Your task to perform on an android device: turn on location history Image 0: 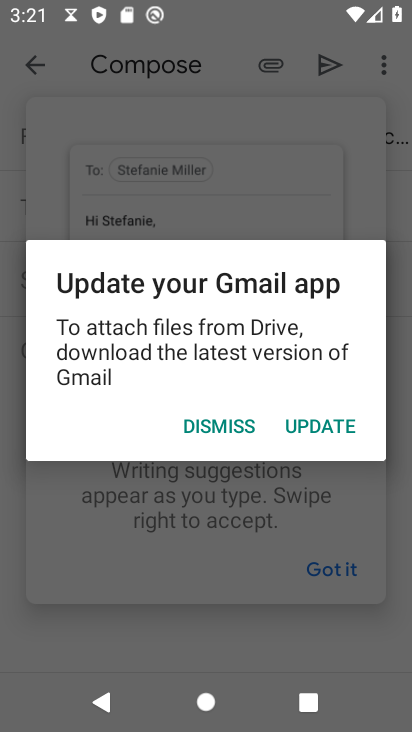
Step 0: press home button
Your task to perform on an android device: turn on location history Image 1: 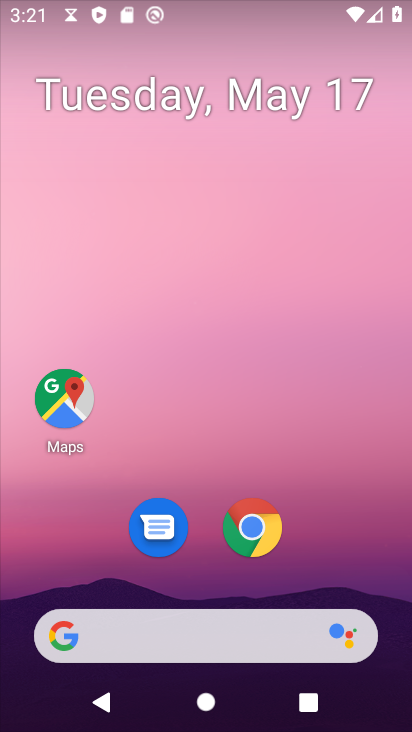
Step 1: drag from (90, 609) to (189, 119)
Your task to perform on an android device: turn on location history Image 2: 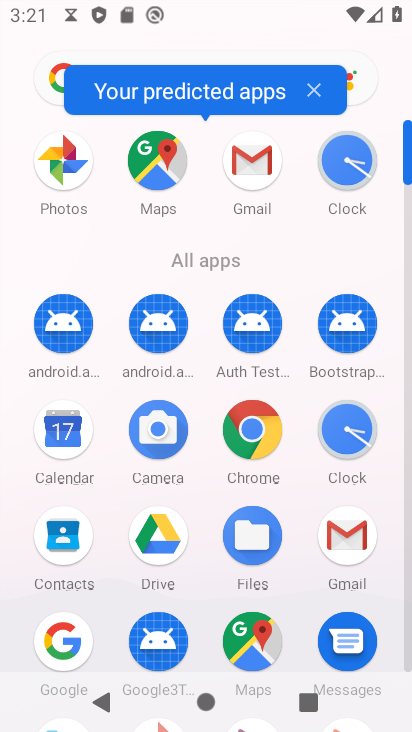
Step 2: drag from (163, 613) to (226, 406)
Your task to perform on an android device: turn on location history Image 3: 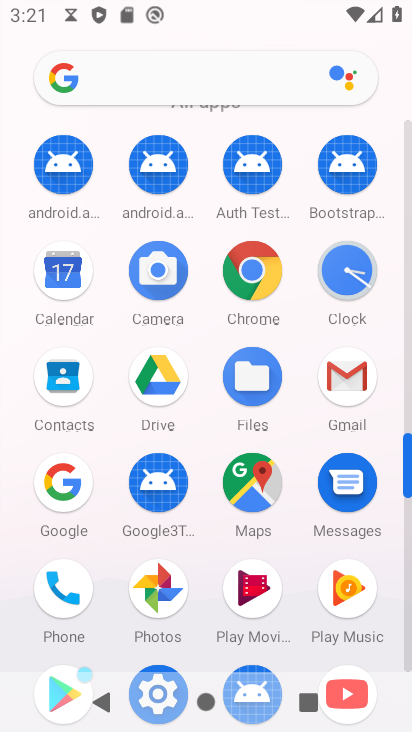
Step 3: drag from (189, 660) to (224, 487)
Your task to perform on an android device: turn on location history Image 4: 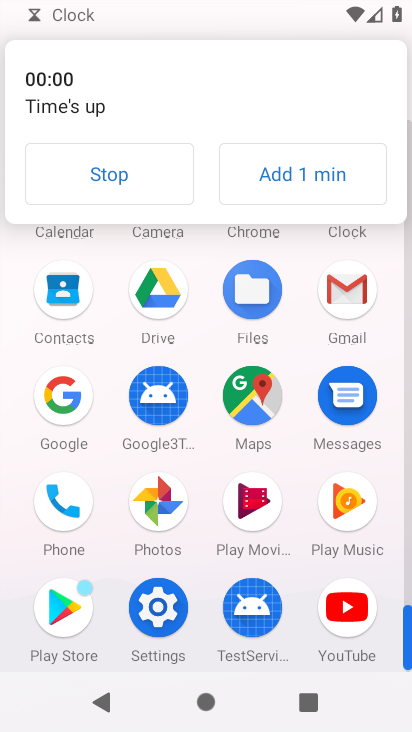
Step 4: click (171, 625)
Your task to perform on an android device: turn on location history Image 5: 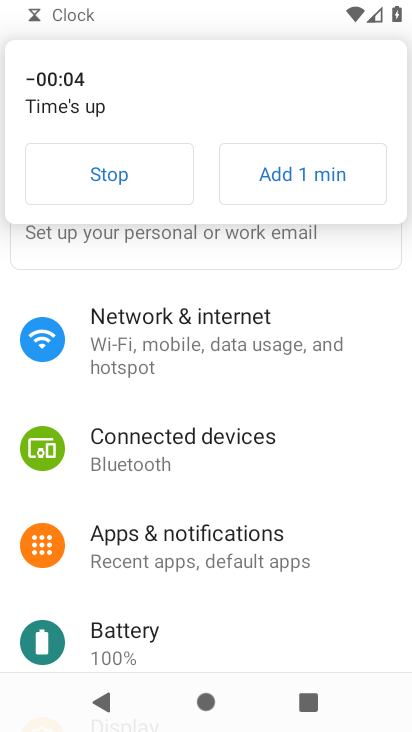
Step 5: drag from (180, 588) to (244, 319)
Your task to perform on an android device: turn on location history Image 6: 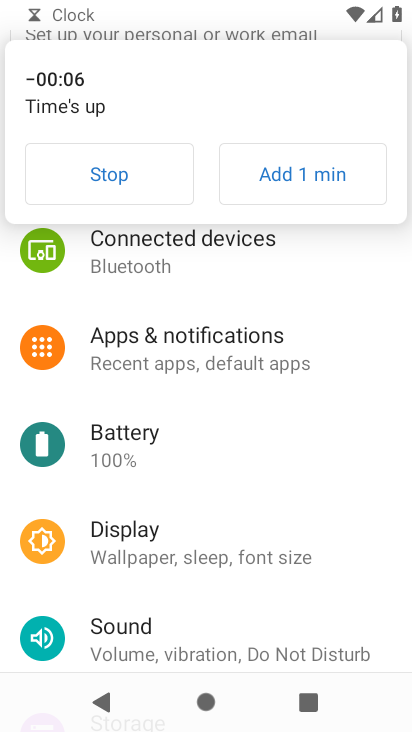
Step 6: click (122, 175)
Your task to perform on an android device: turn on location history Image 7: 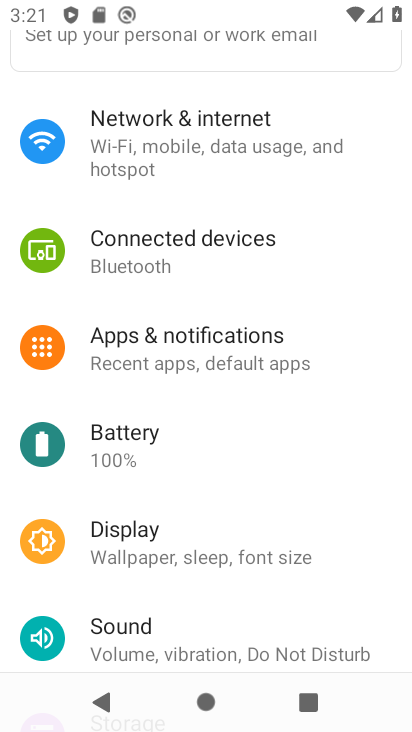
Step 7: drag from (158, 609) to (243, 273)
Your task to perform on an android device: turn on location history Image 8: 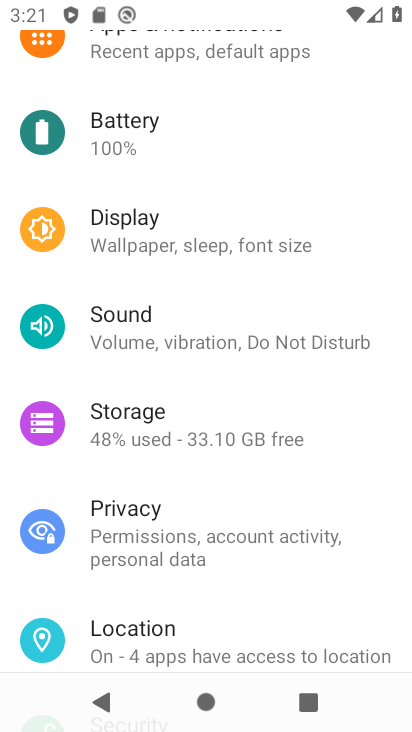
Step 8: click (154, 648)
Your task to perform on an android device: turn on location history Image 9: 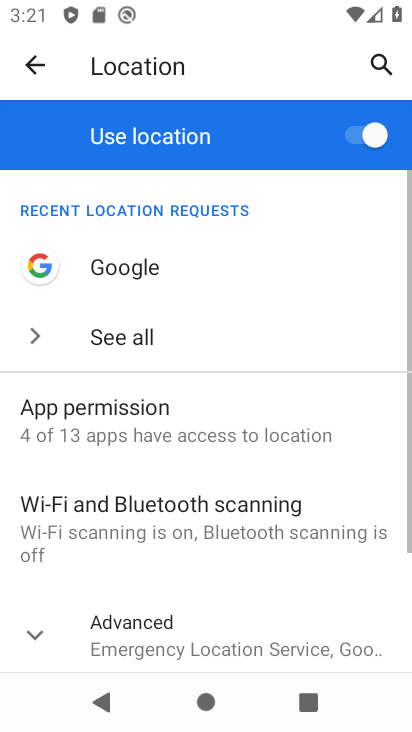
Step 9: drag from (162, 522) to (227, 278)
Your task to perform on an android device: turn on location history Image 10: 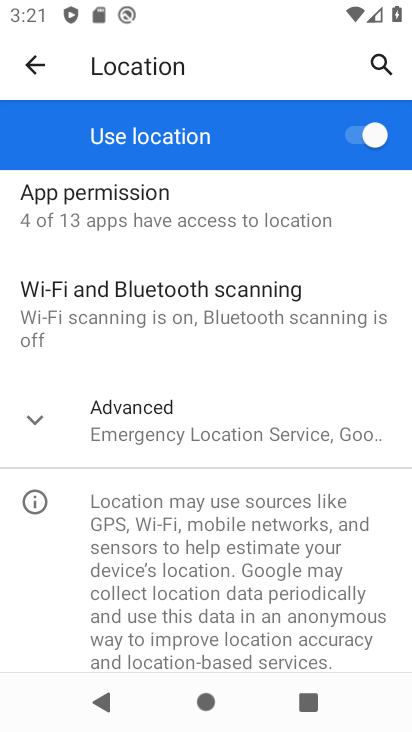
Step 10: click (192, 447)
Your task to perform on an android device: turn on location history Image 11: 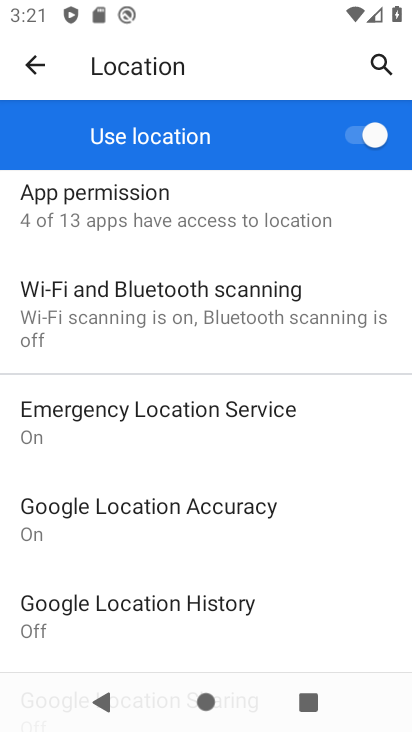
Step 11: drag from (152, 583) to (199, 396)
Your task to perform on an android device: turn on location history Image 12: 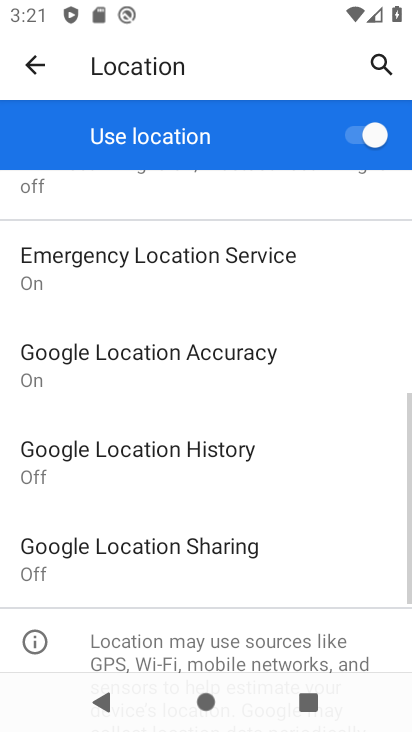
Step 12: click (179, 450)
Your task to perform on an android device: turn on location history Image 13: 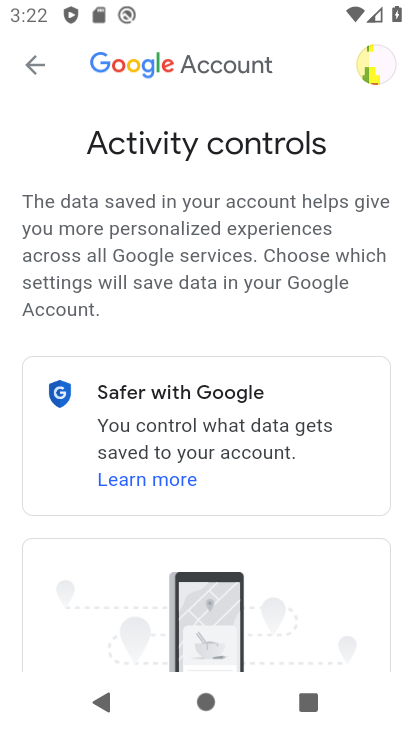
Step 13: drag from (175, 610) to (266, 223)
Your task to perform on an android device: turn on location history Image 14: 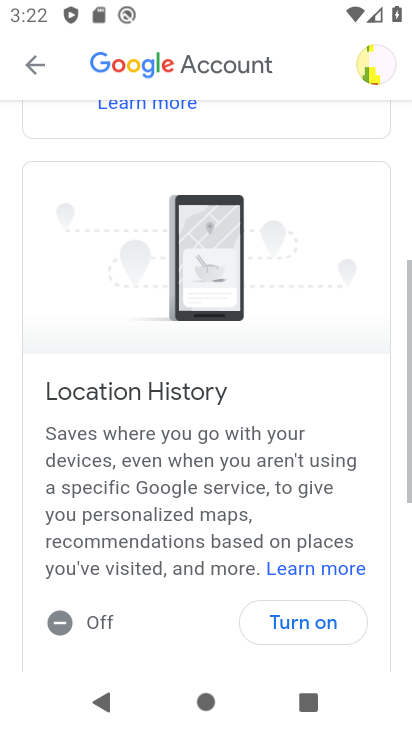
Step 14: drag from (235, 613) to (284, 324)
Your task to perform on an android device: turn on location history Image 15: 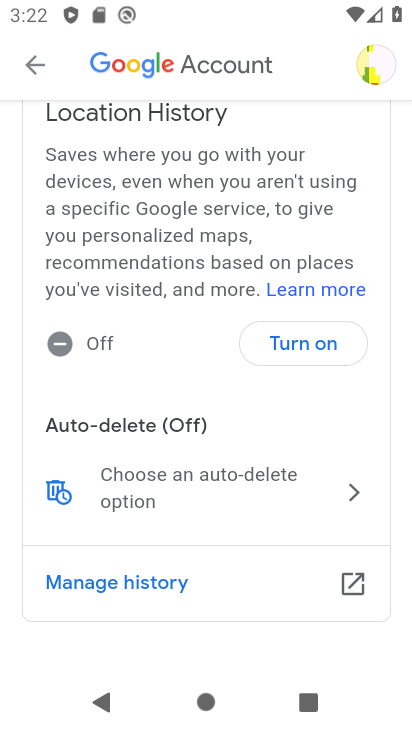
Step 15: click (317, 339)
Your task to perform on an android device: turn on location history Image 16: 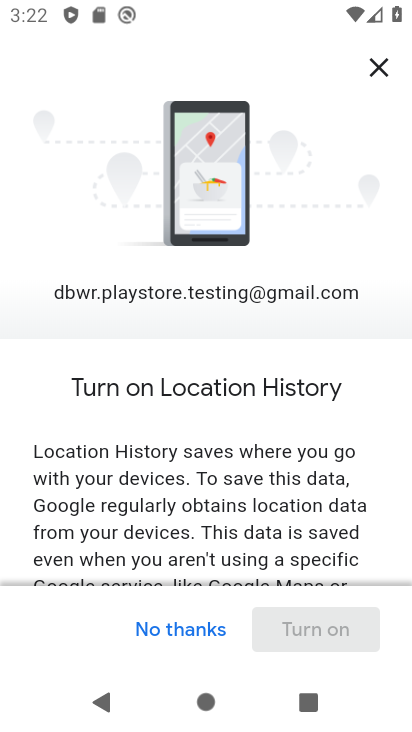
Step 16: drag from (218, 526) to (303, 159)
Your task to perform on an android device: turn on location history Image 17: 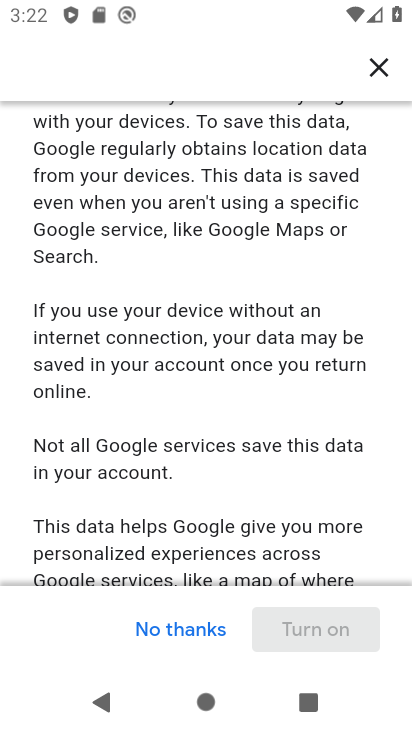
Step 17: drag from (260, 466) to (320, 183)
Your task to perform on an android device: turn on location history Image 18: 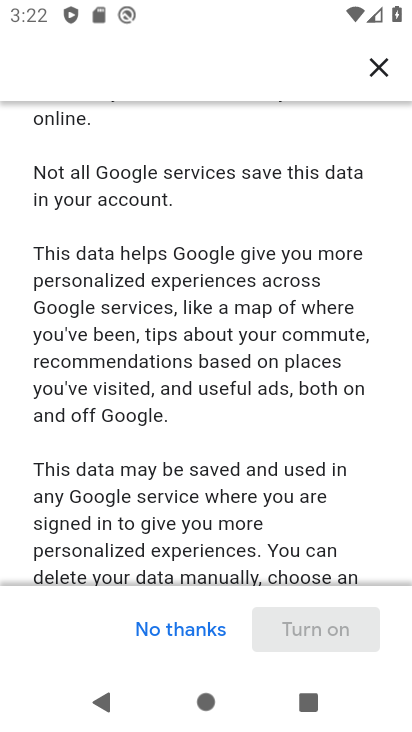
Step 18: drag from (275, 502) to (331, 205)
Your task to perform on an android device: turn on location history Image 19: 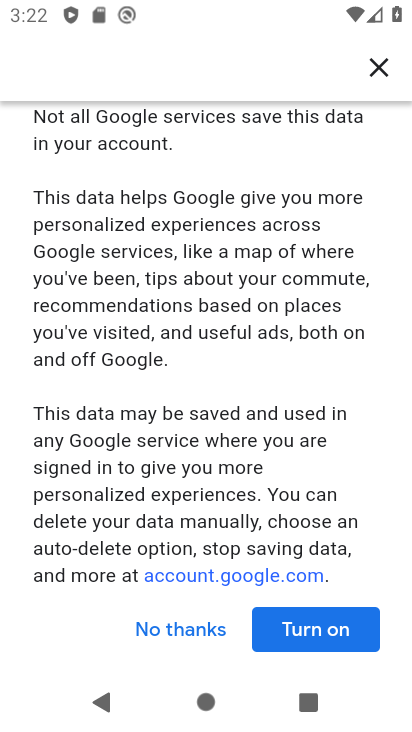
Step 19: click (356, 642)
Your task to perform on an android device: turn on location history Image 20: 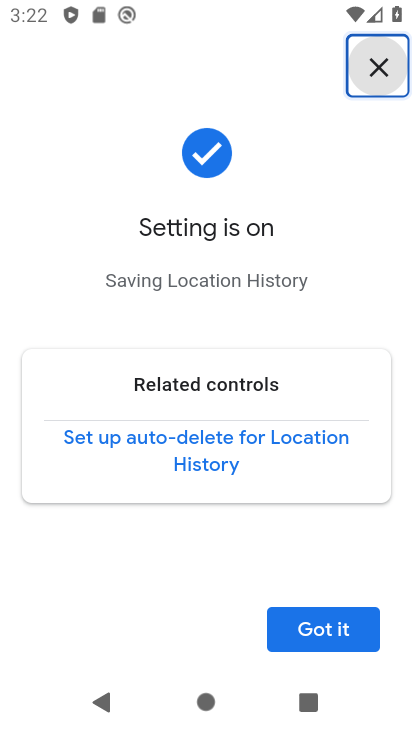
Step 20: click (352, 638)
Your task to perform on an android device: turn on location history Image 21: 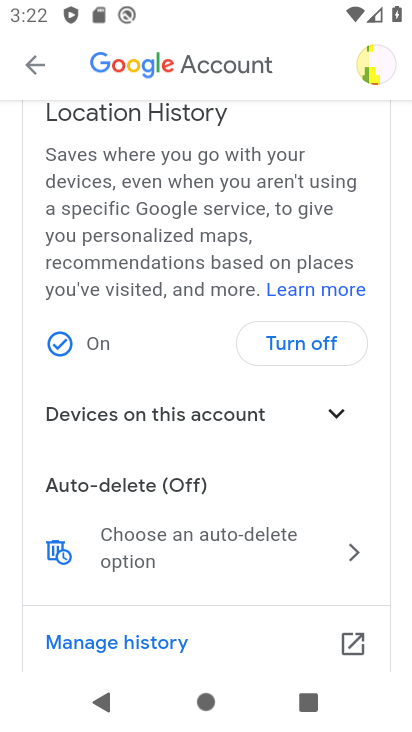
Step 21: task complete